Your task to perform on an android device: add a label to a message in the gmail app Image 0: 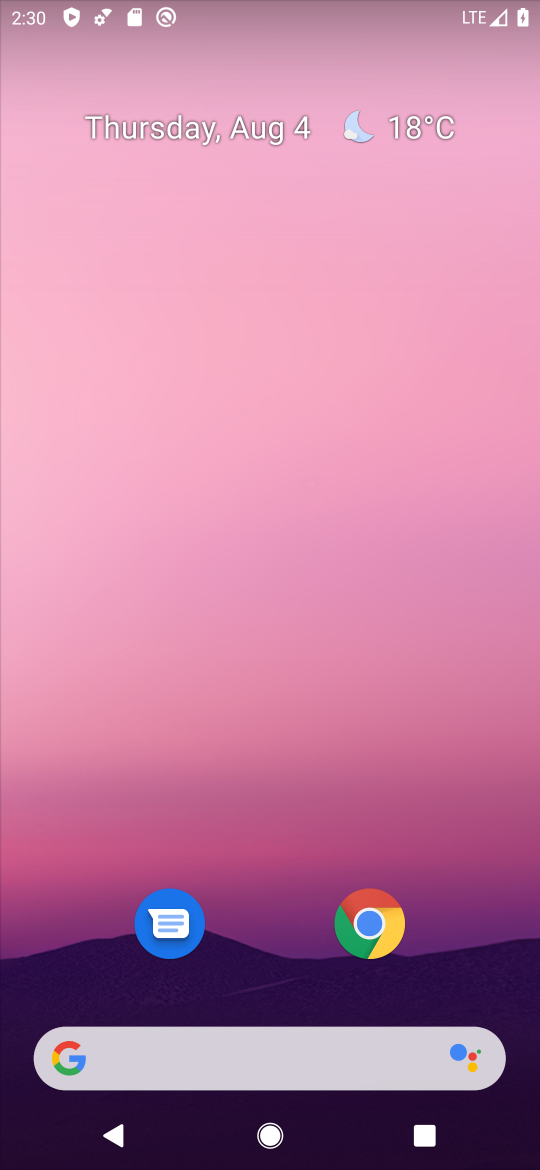
Step 0: drag from (339, 991) to (320, 186)
Your task to perform on an android device: add a label to a message in the gmail app Image 1: 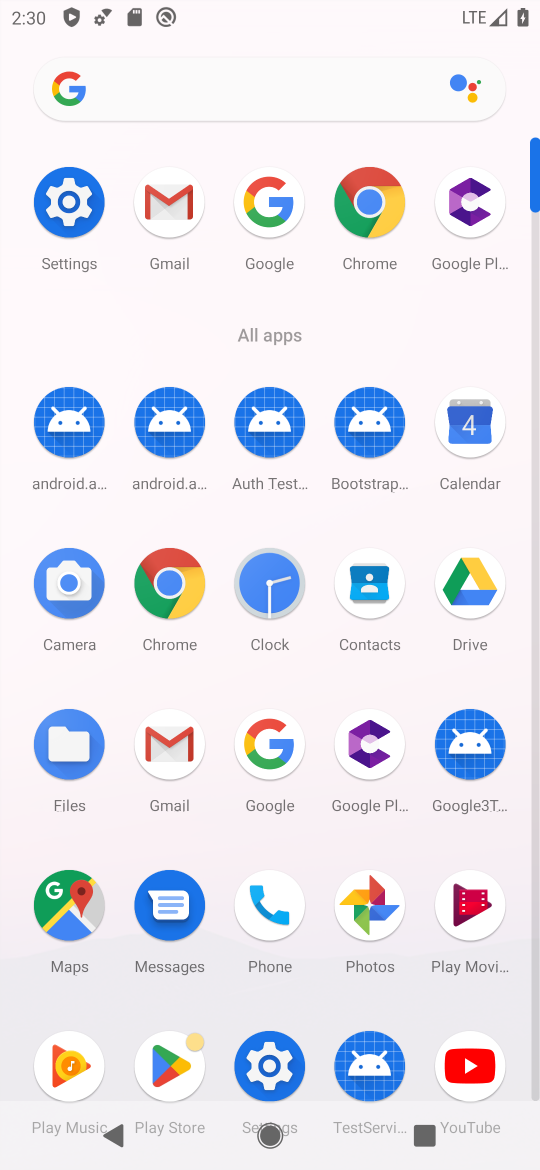
Step 1: click (151, 210)
Your task to perform on an android device: add a label to a message in the gmail app Image 2: 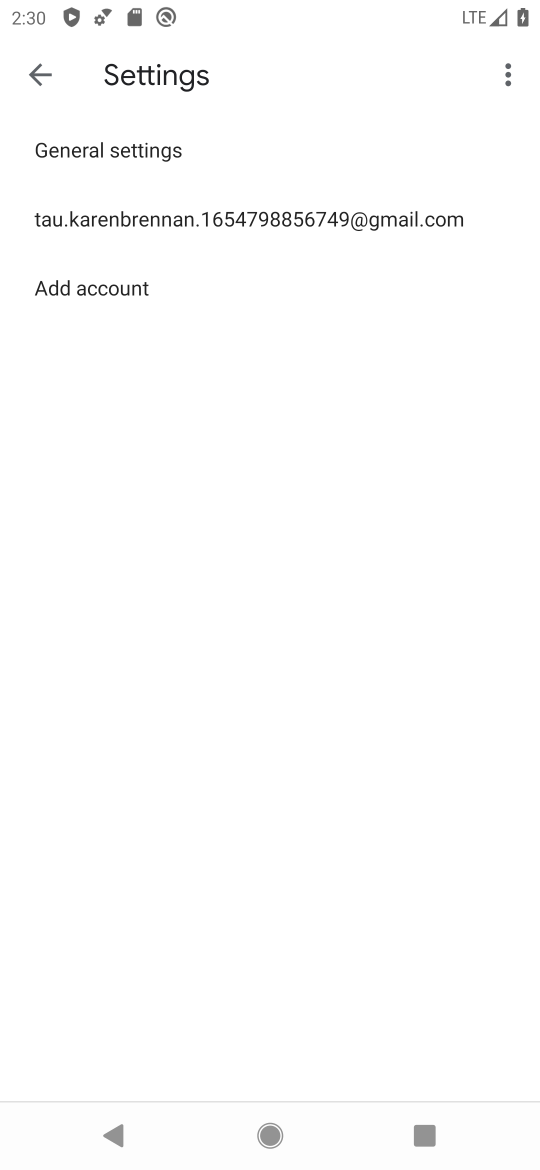
Step 2: click (41, 83)
Your task to perform on an android device: add a label to a message in the gmail app Image 3: 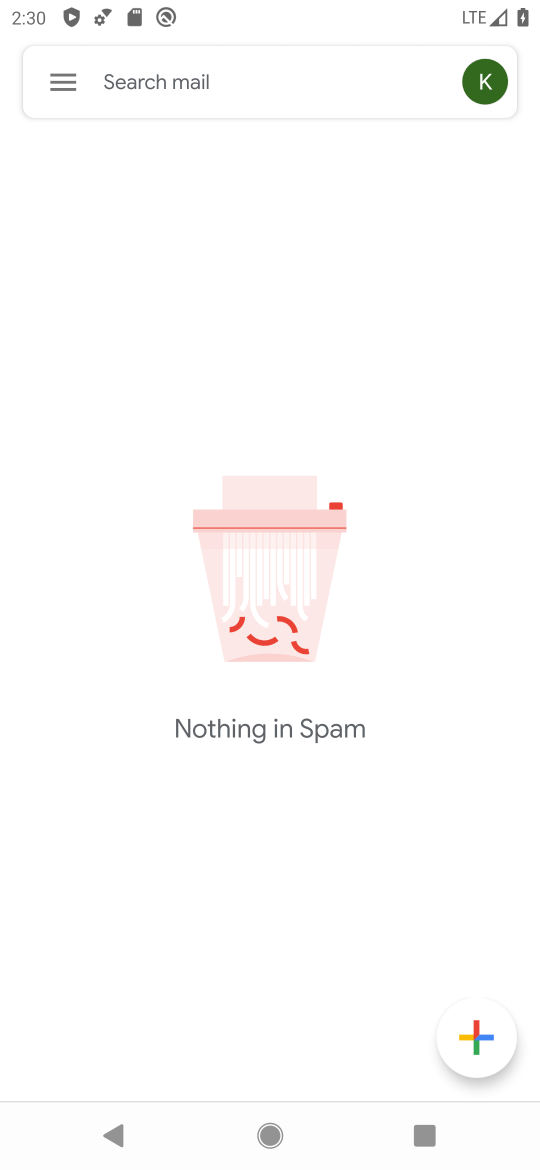
Step 3: click (46, 74)
Your task to perform on an android device: add a label to a message in the gmail app Image 4: 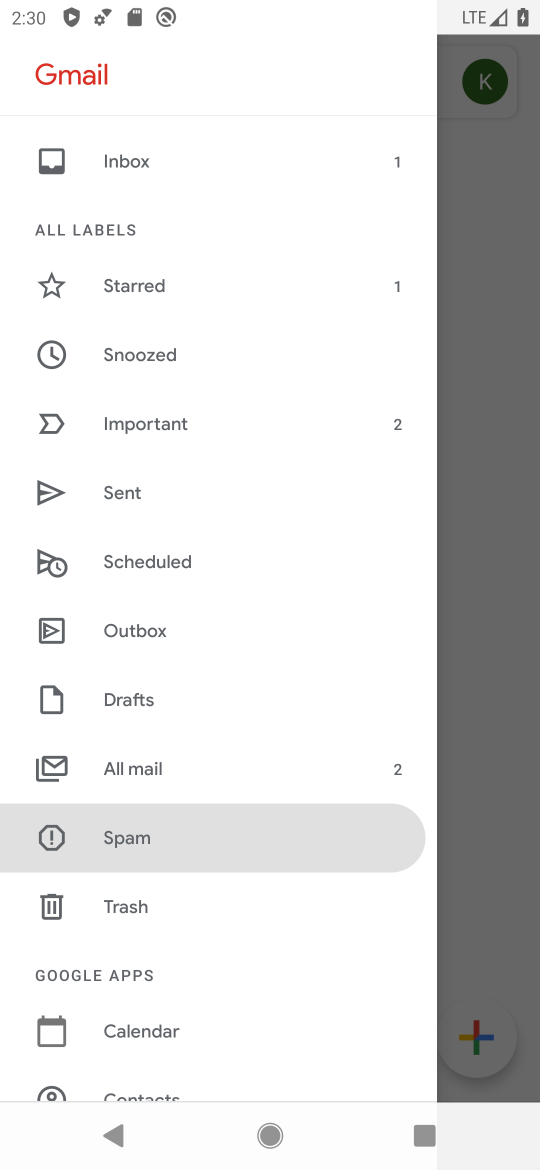
Step 4: click (132, 175)
Your task to perform on an android device: add a label to a message in the gmail app Image 5: 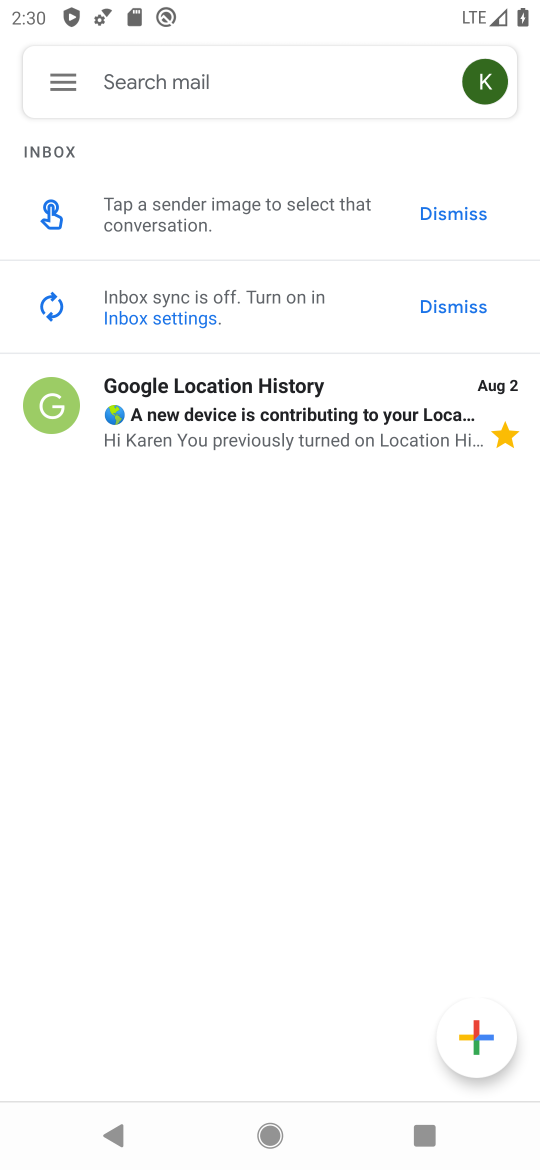
Step 5: click (302, 425)
Your task to perform on an android device: add a label to a message in the gmail app Image 6: 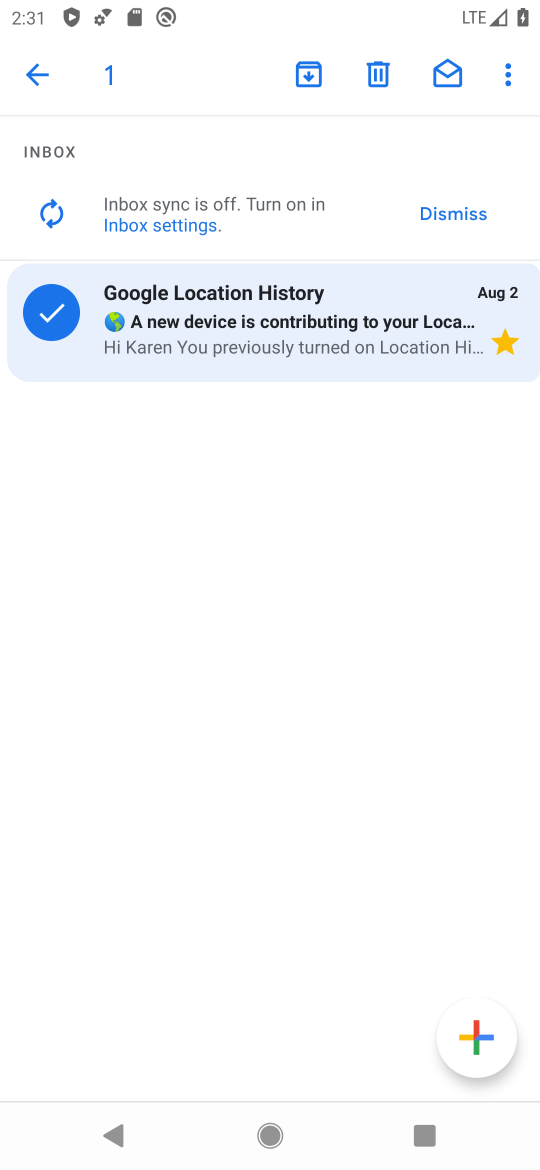
Step 6: click (44, 307)
Your task to perform on an android device: add a label to a message in the gmail app Image 7: 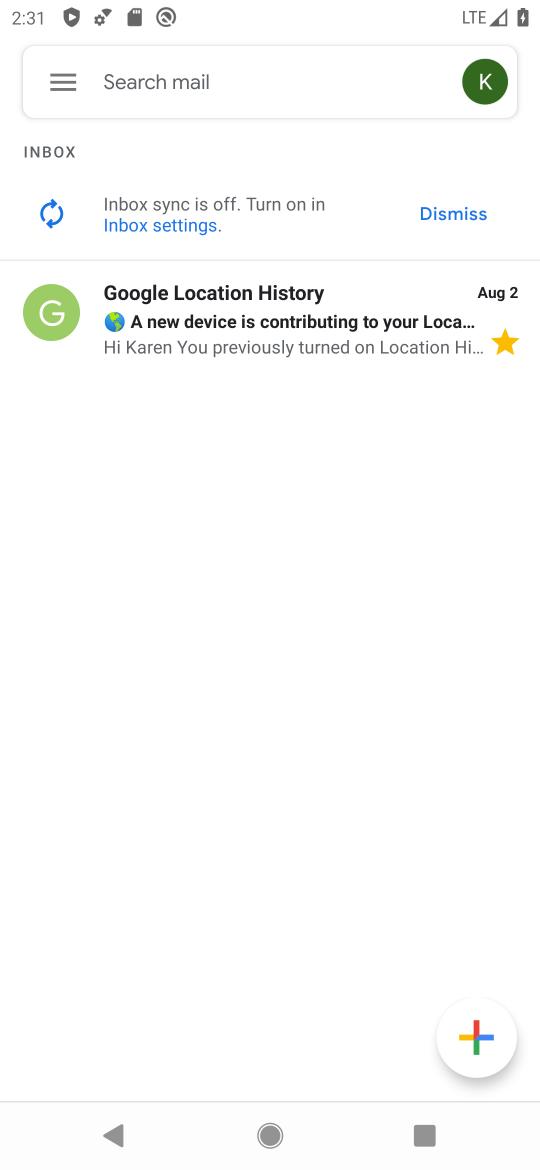
Step 7: task complete